Your task to perform on an android device: change alarm snooze length Image 0: 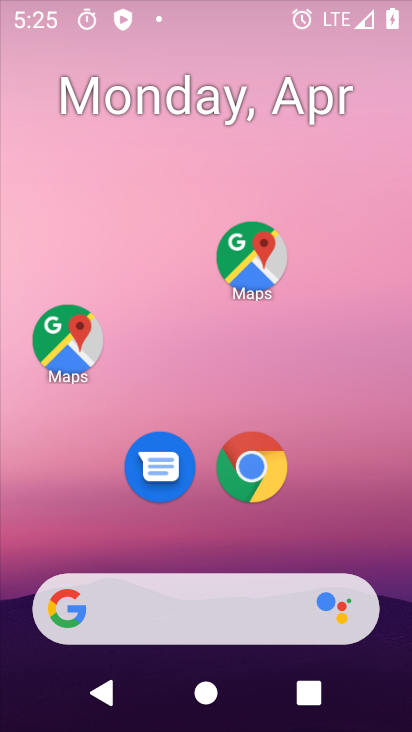
Step 0: drag from (283, 501) to (250, 2)
Your task to perform on an android device: change alarm snooze length Image 1: 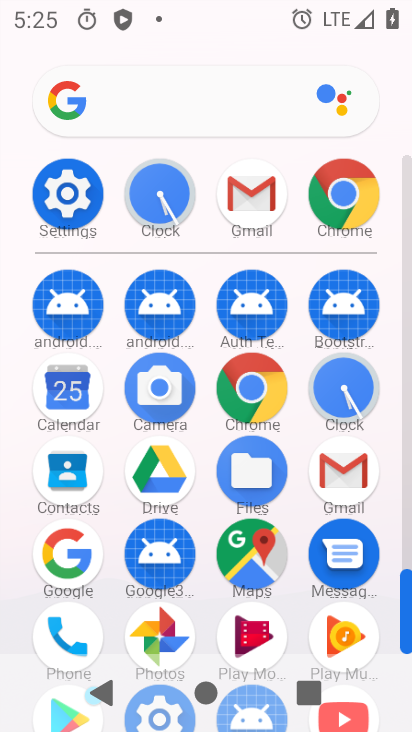
Step 1: click (273, 381)
Your task to perform on an android device: change alarm snooze length Image 2: 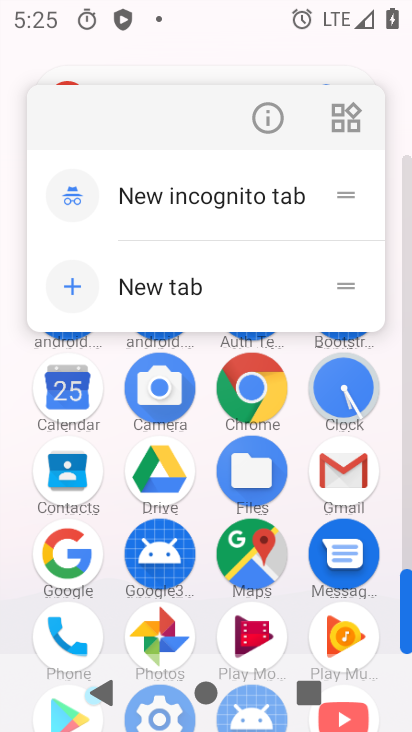
Step 2: click (347, 382)
Your task to perform on an android device: change alarm snooze length Image 3: 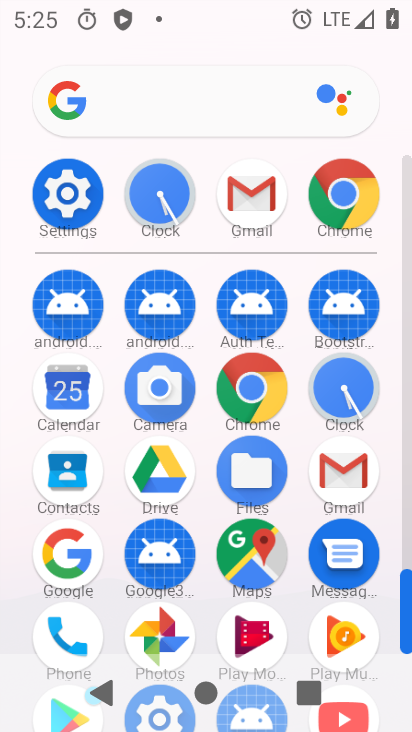
Step 3: click (349, 406)
Your task to perform on an android device: change alarm snooze length Image 4: 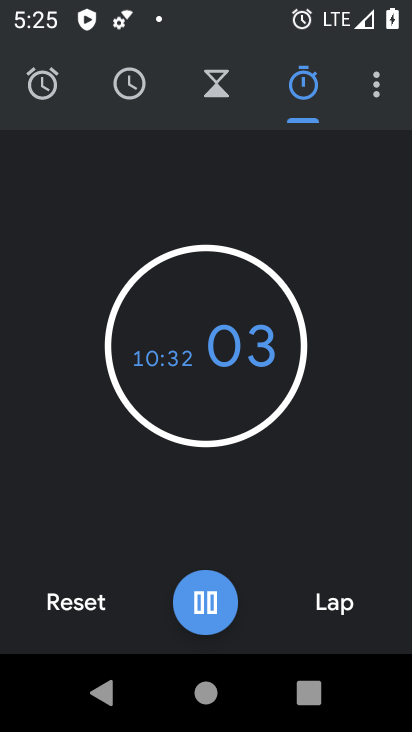
Step 4: click (376, 82)
Your task to perform on an android device: change alarm snooze length Image 5: 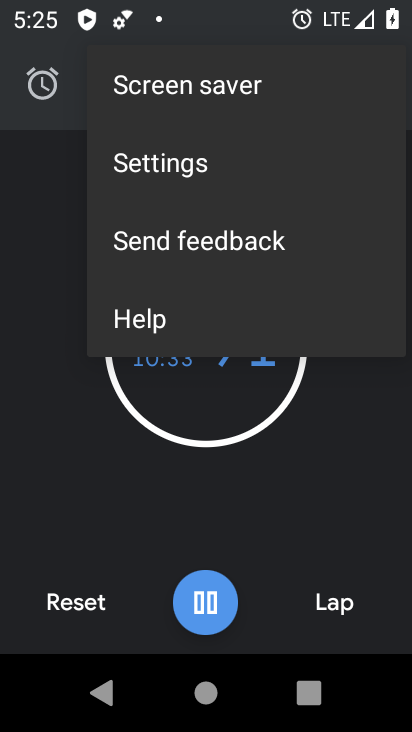
Step 5: click (275, 168)
Your task to perform on an android device: change alarm snooze length Image 6: 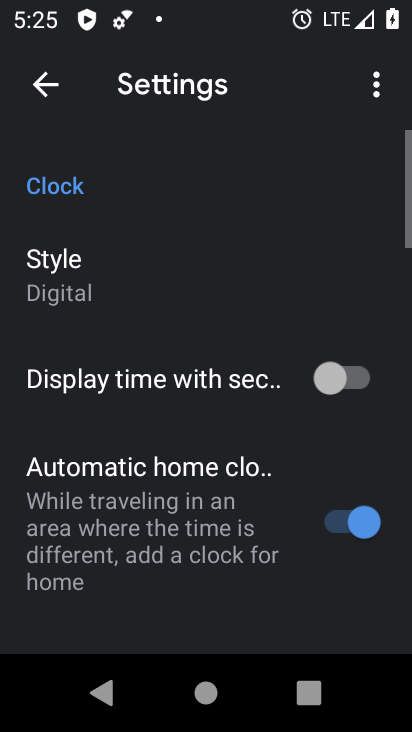
Step 6: drag from (239, 547) to (263, 22)
Your task to perform on an android device: change alarm snooze length Image 7: 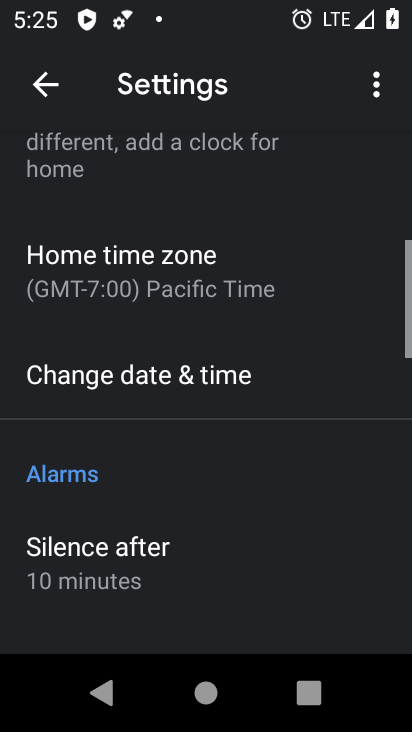
Step 7: drag from (216, 494) to (196, 54)
Your task to perform on an android device: change alarm snooze length Image 8: 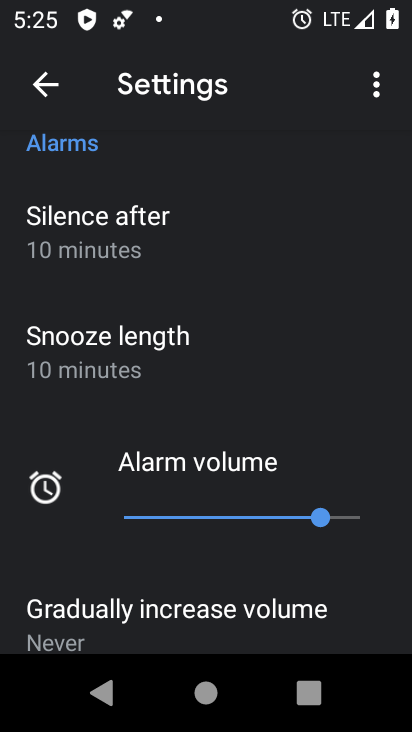
Step 8: click (208, 348)
Your task to perform on an android device: change alarm snooze length Image 9: 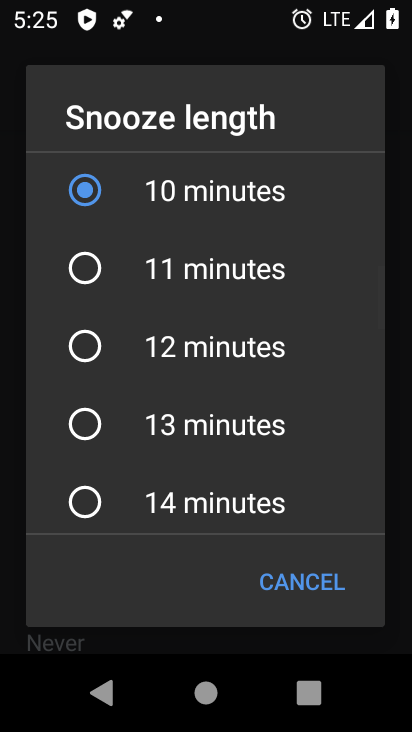
Step 9: click (169, 351)
Your task to perform on an android device: change alarm snooze length Image 10: 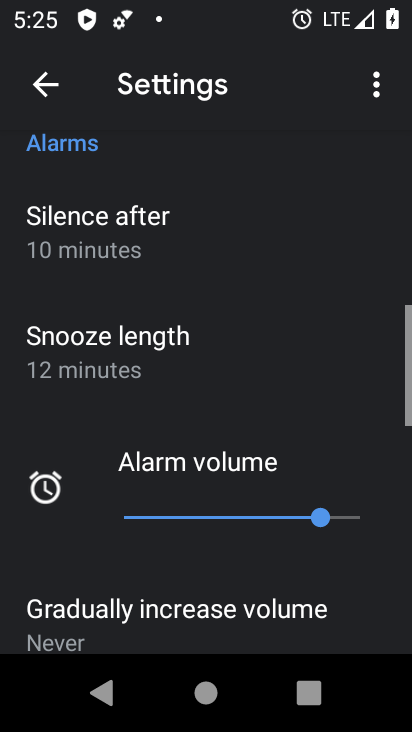
Step 10: task complete